Your task to perform on an android device: toggle javascript in the chrome app Image 0: 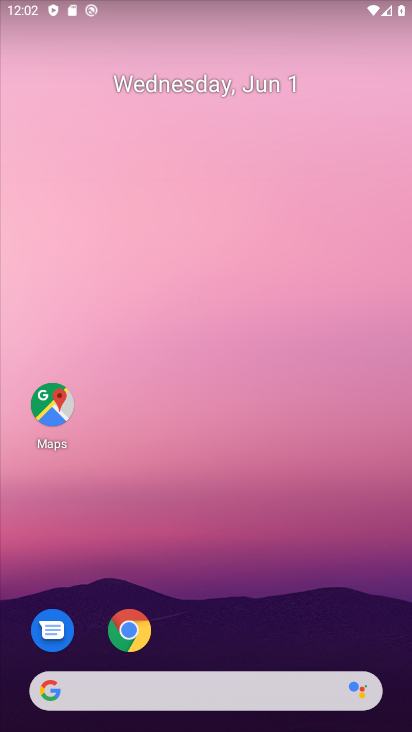
Step 0: drag from (225, 591) to (230, 269)
Your task to perform on an android device: toggle javascript in the chrome app Image 1: 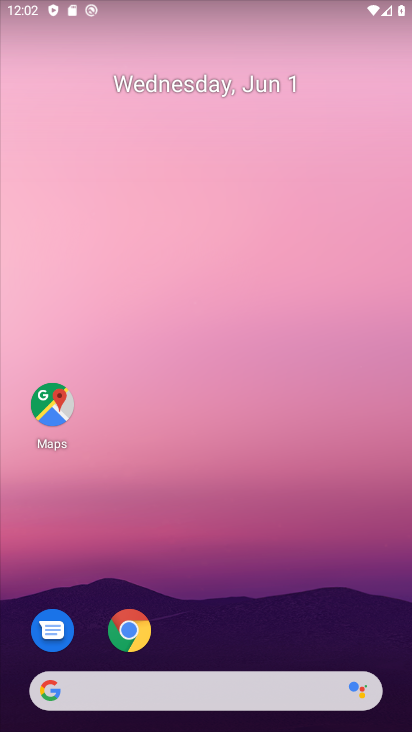
Step 1: drag from (219, 616) to (204, 199)
Your task to perform on an android device: toggle javascript in the chrome app Image 2: 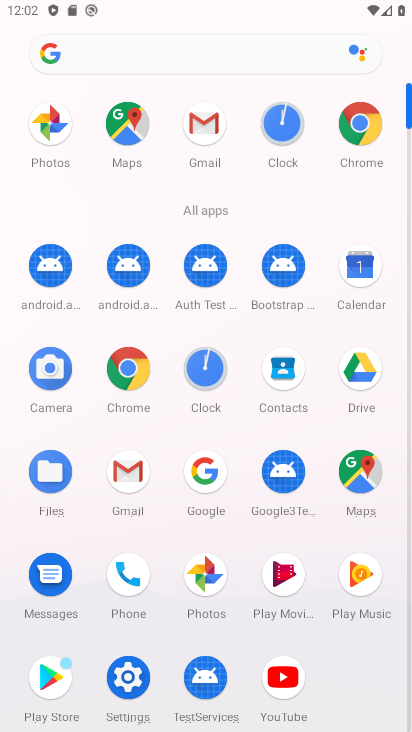
Step 2: click (135, 361)
Your task to perform on an android device: toggle javascript in the chrome app Image 3: 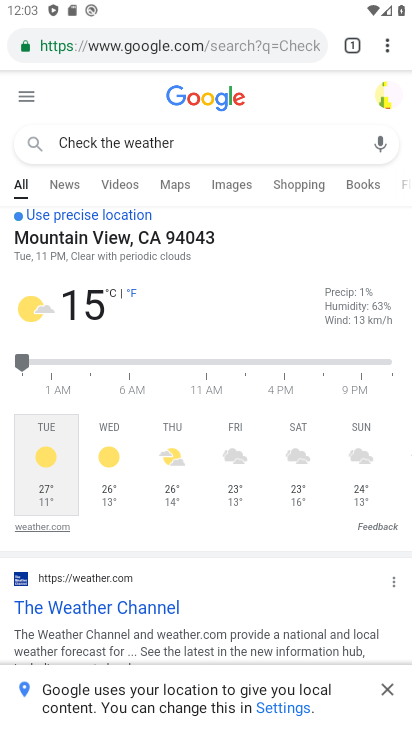
Step 3: click (386, 49)
Your task to perform on an android device: toggle javascript in the chrome app Image 4: 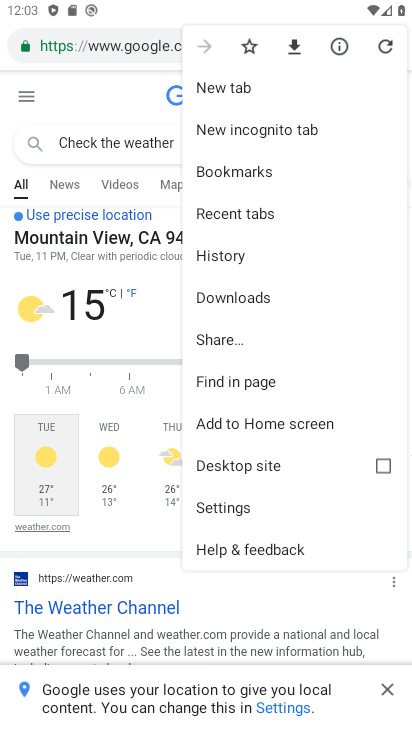
Step 4: click (246, 513)
Your task to perform on an android device: toggle javascript in the chrome app Image 5: 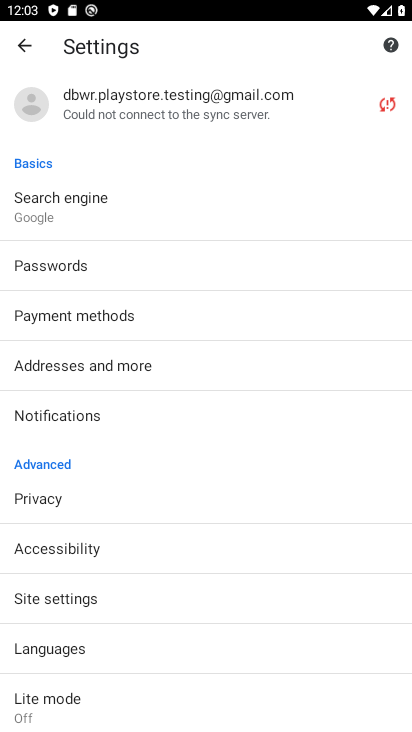
Step 5: drag from (164, 626) to (215, 318)
Your task to perform on an android device: toggle javascript in the chrome app Image 6: 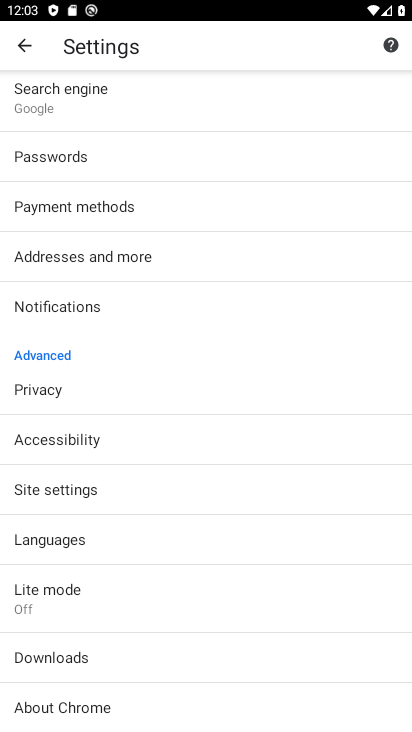
Step 6: click (109, 482)
Your task to perform on an android device: toggle javascript in the chrome app Image 7: 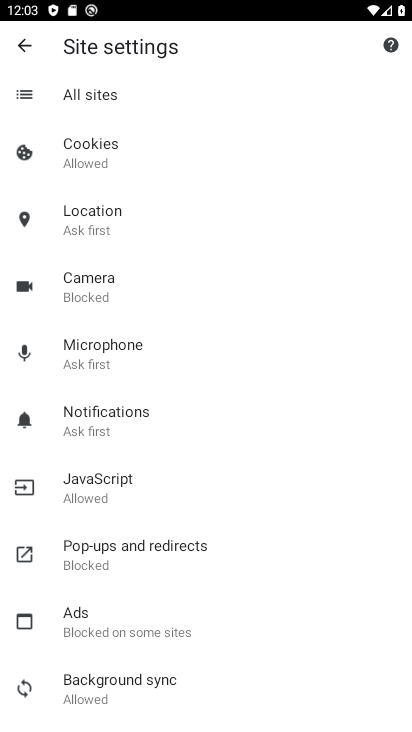
Step 7: drag from (206, 621) to (223, 266)
Your task to perform on an android device: toggle javascript in the chrome app Image 8: 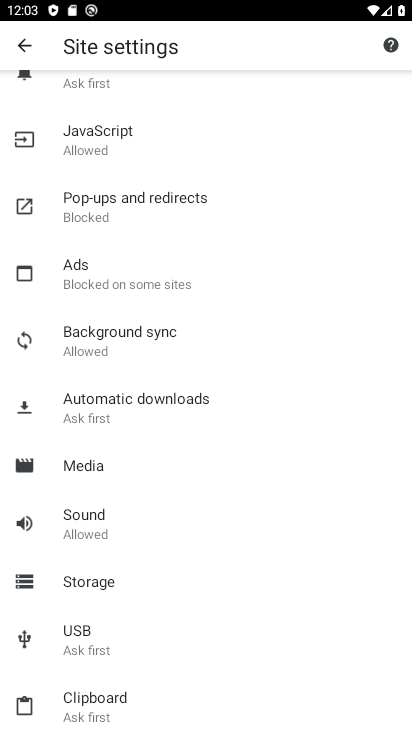
Step 8: drag from (168, 618) to (198, 267)
Your task to perform on an android device: toggle javascript in the chrome app Image 9: 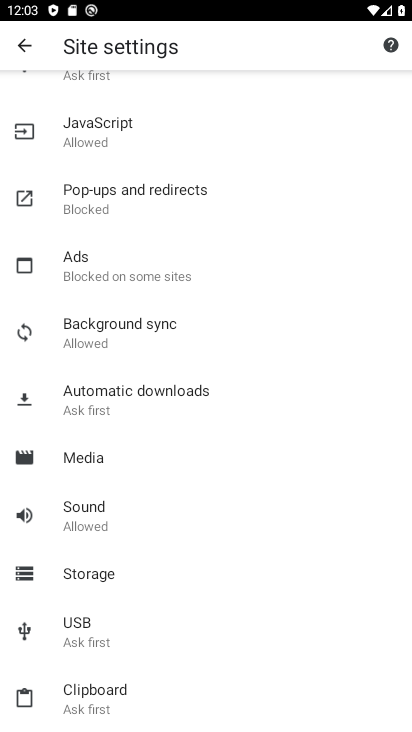
Step 9: drag from (123, 651) to (143, 384)
Your task to perform on an android device: toggle javascript in the chrome app Image 10: 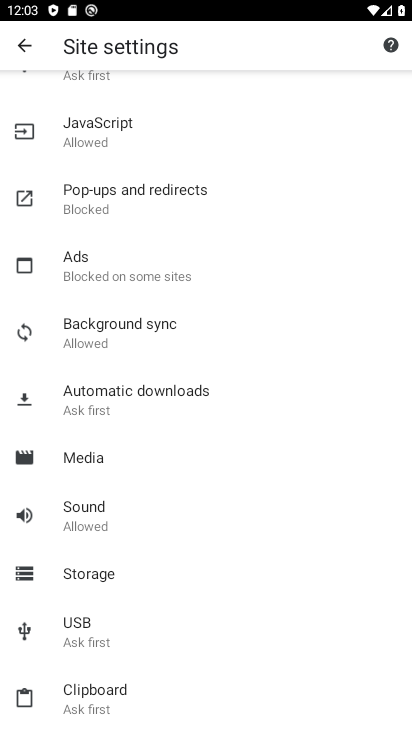
Step 10: click (162, 204)
Your task to perform on an android device: toggle javascript in the chrome app Image 11: 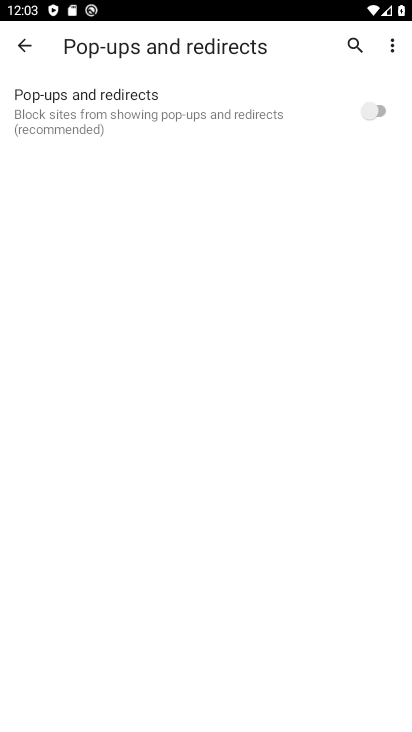
Step 11: click (15, 47)
Your task to perform on an android device: toggle javascript in the chrome app Image 12: 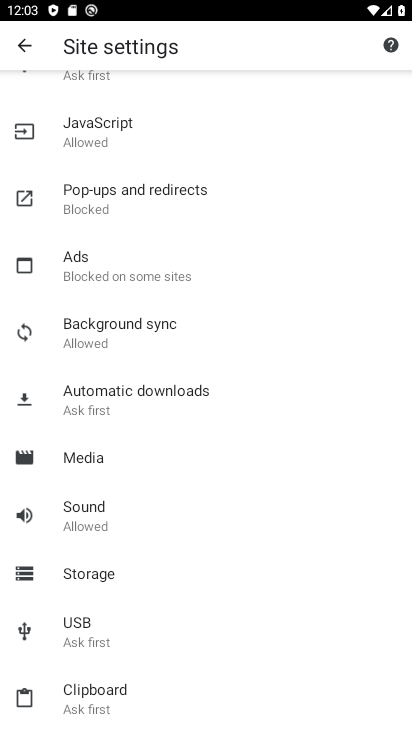
Step 12: click (117, 134)
Your task to perform on an android device: toggle javascript in the chrome app Image 13: 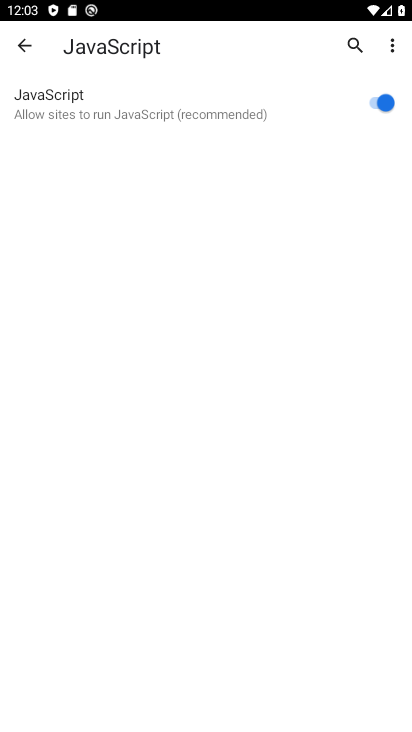
Step 13: click (373, 105)
Your task to perform on an android device: toggle javascript in the chrome app Image 14: 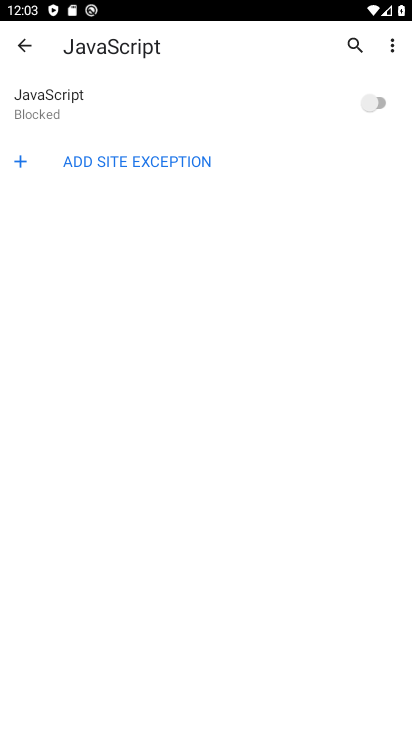
Step 14: task complete